Your task to perform on an android device: turn on the 24-hour format for clock Image 0: 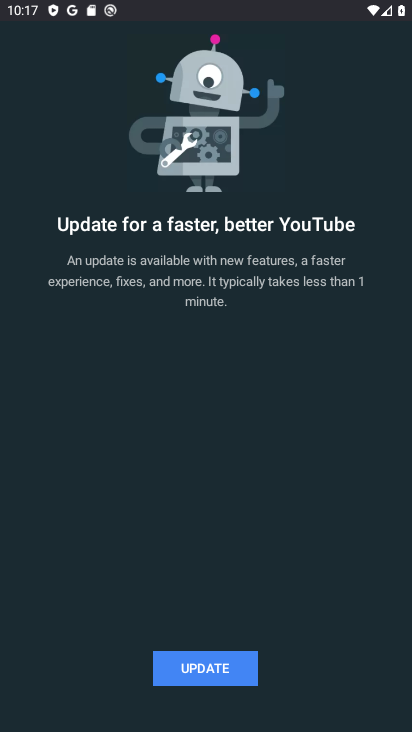
Step 0: press home button
Your task to perform on an android device: turn on the 24-hour format for clock Image 1: 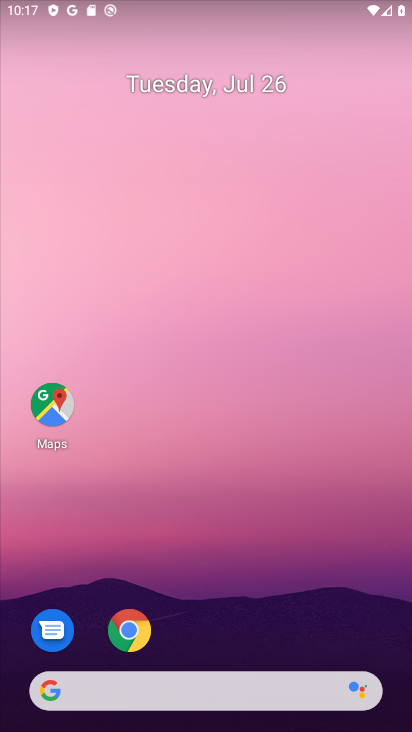
Step 1: drag from (270, 591) to (345, 44)
Your task to perform on an android device: turn on the 24-hour format for clock Image 2: 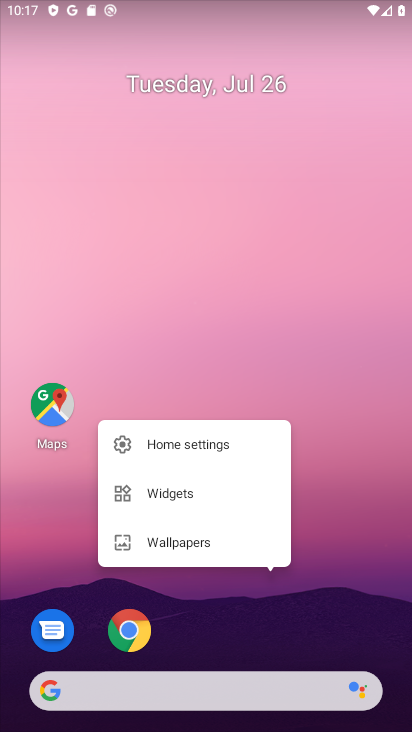
Step 2: click (352, 555)
Your task to perform on an android device: turn on the 24-hour format for clock Image 3: 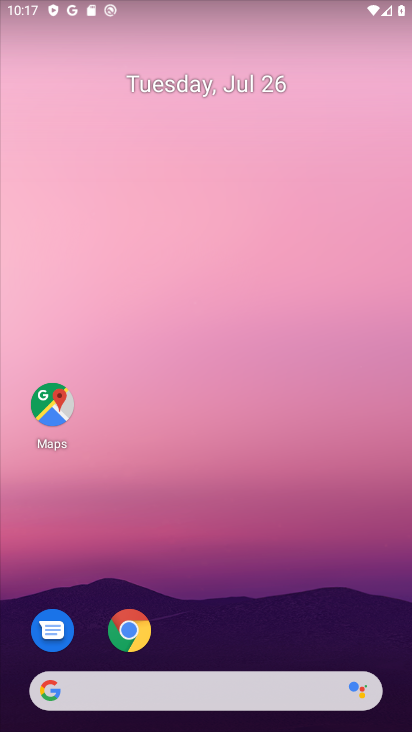
Step 3: drag from (267, 599) to (261, 299)
Your task to perform on an android device: turn on the 24-hour format for clock Image 4: 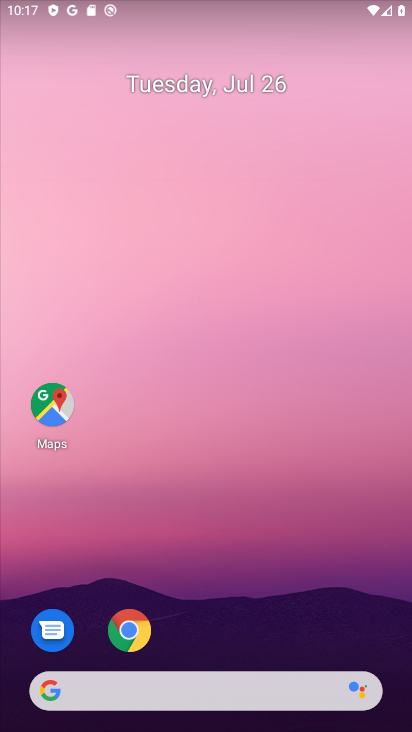
Step 4: drag from (280, 595) to (244, 177)
Your task to perform on an android device: turn on the 24-hour format for clock Image 5: 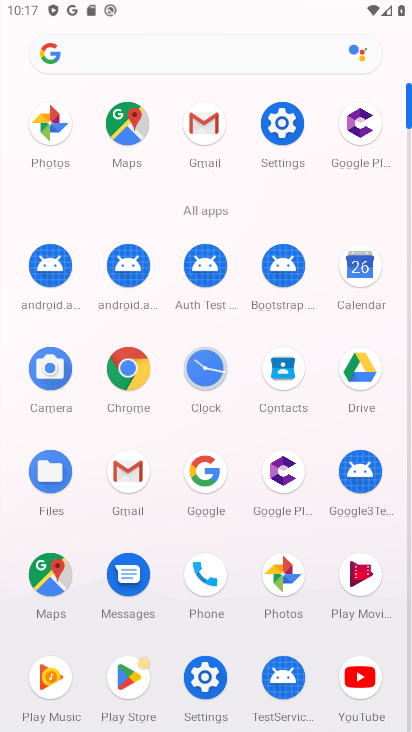
Step 5: click (202, 378)
Your task to perform on an android device: turn on the 24-hour format for clock Image 6: 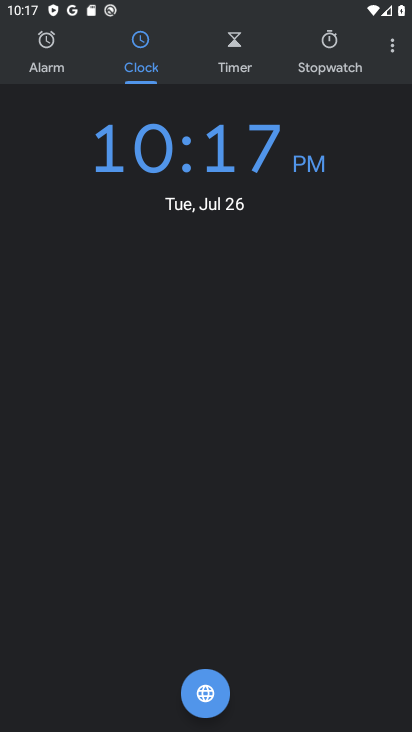
Step 6: click (392, 49)
Your task to perform on an android device: turn on the 24-hour format for clock Image 7: 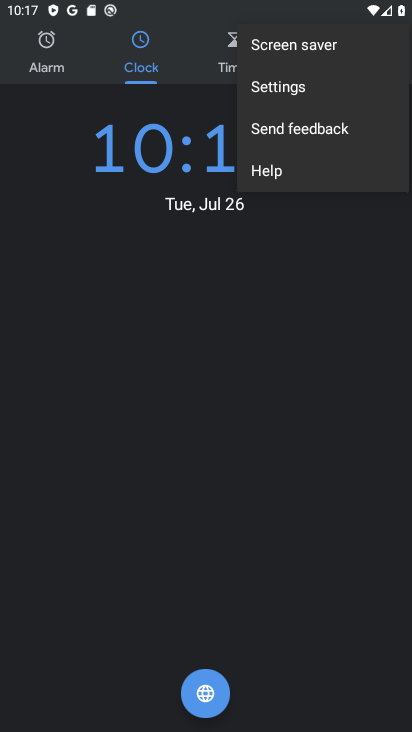
Step 7: click (296, 96)
Your task to perform on an android device: turn on the 24-hour format for clock Image 8: 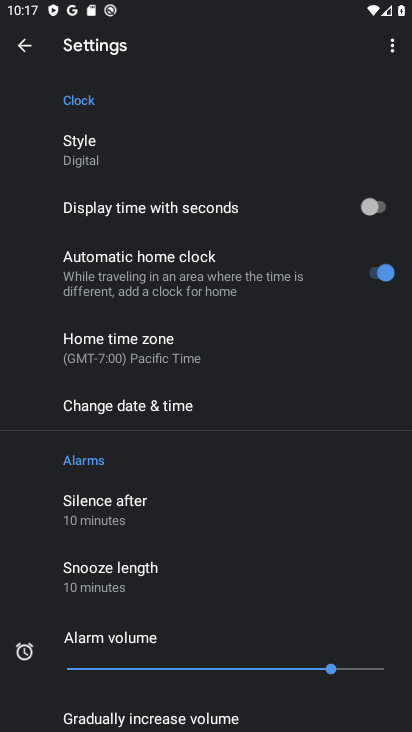
Step 8: task complete